Your task to perform on an android device: turn off picture-in-picture Image 0: 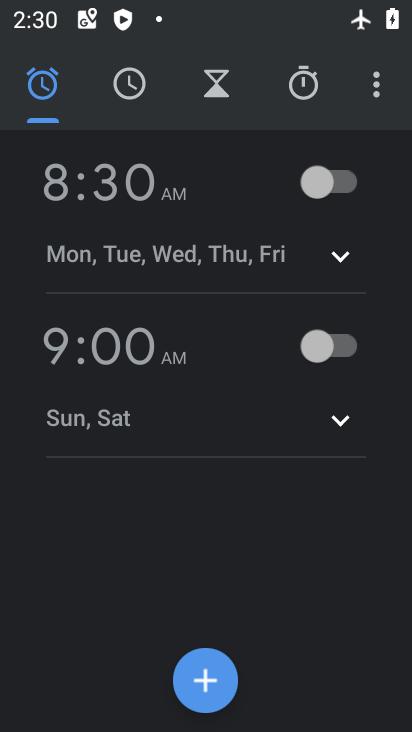
Step 0: press home button
Your task to perform on an android device: turn off picture-in-picture Image 1: 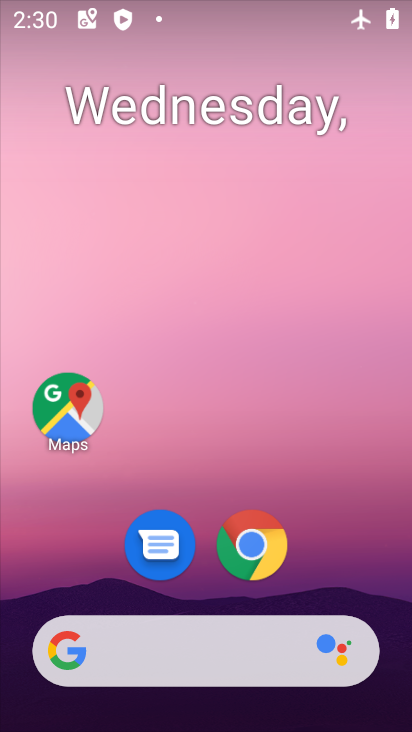
Step 1: click (253, 540)
Your task to perform on an android device: turn off picture-in-picture Image 2: 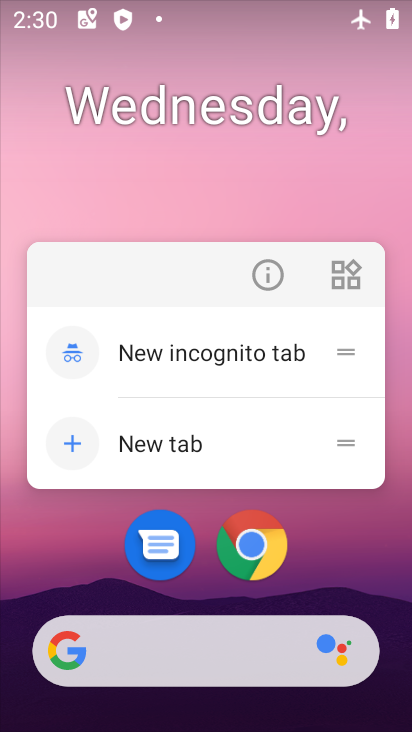
Step 2: click (270, 276)
Your task to perform on an android device: turn off picture-in-picture Image 3: 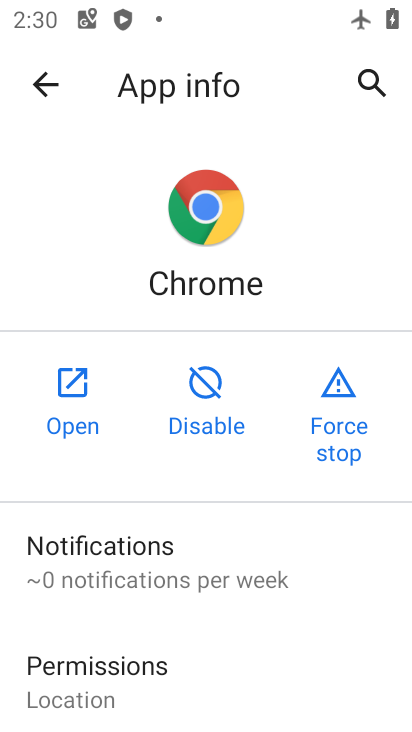
Step 3: drag from (269, 542) to (230, 61)
Your task to perform on an android device: turn off picture-in-picture Image 4: 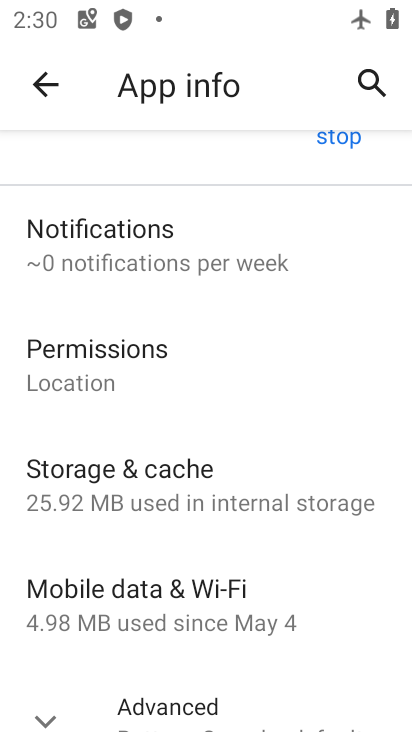
Step 4: drag from (307, 658) to (321, 288)
Your task to perform on an android device: turn off picture-in-picture Image 5: 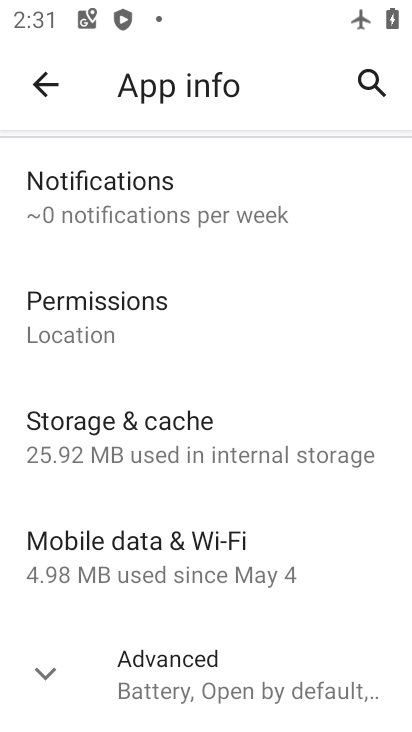
Step 5: click (190, 660)
Your task to perform on an android device: turn off picture-in-picture Image 6: 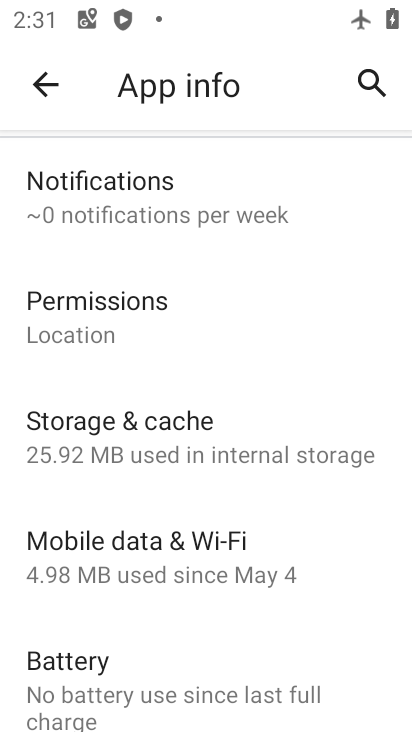
Step 6: drag from (199, 638) to (242, 174)
Your task to perform on an android device: turn off picture-in-picture Image 7: 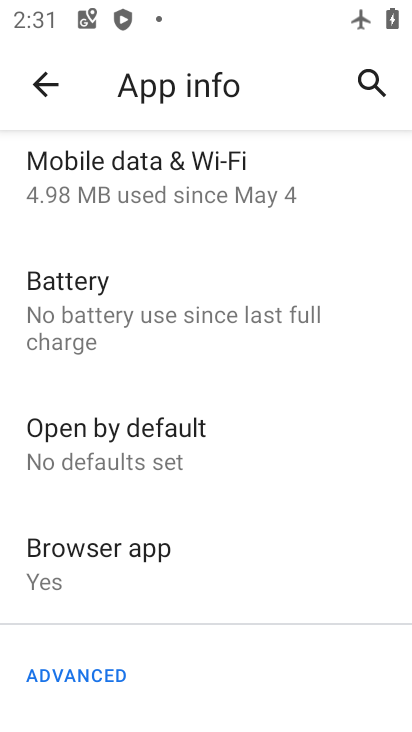
Step 7: drag from (215, 538) to (268, 173)
Your task to perform on an android device: turn off picture-in-picture Image 8: 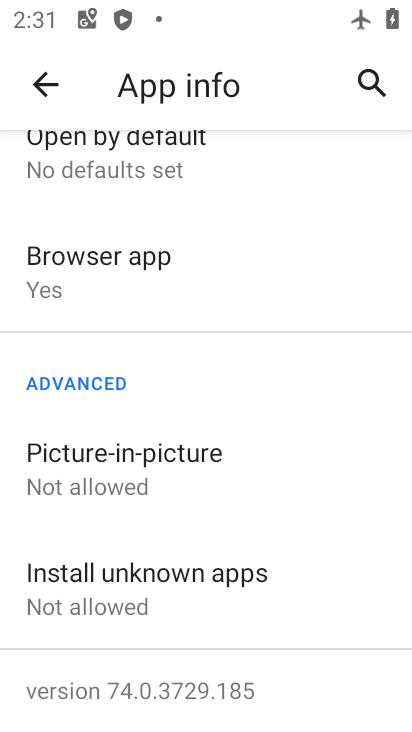
Step 8: click (151, 464)
Your task to perform on an android device: turn off picture-in-picture Image 9: 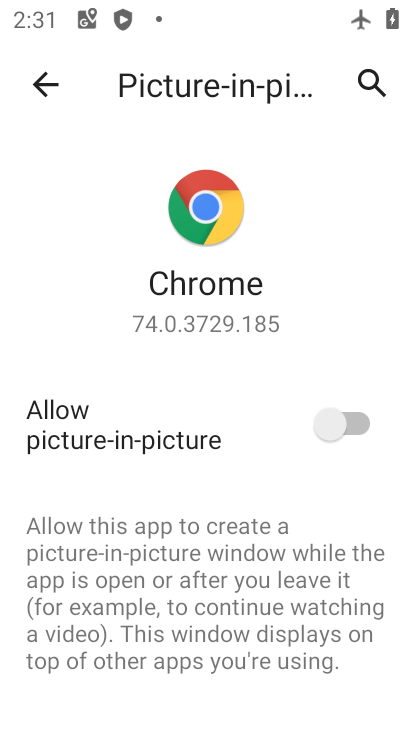
Step 9: task complete